Your task to perform on an android device: allow cookies in the chrome app Image 0: 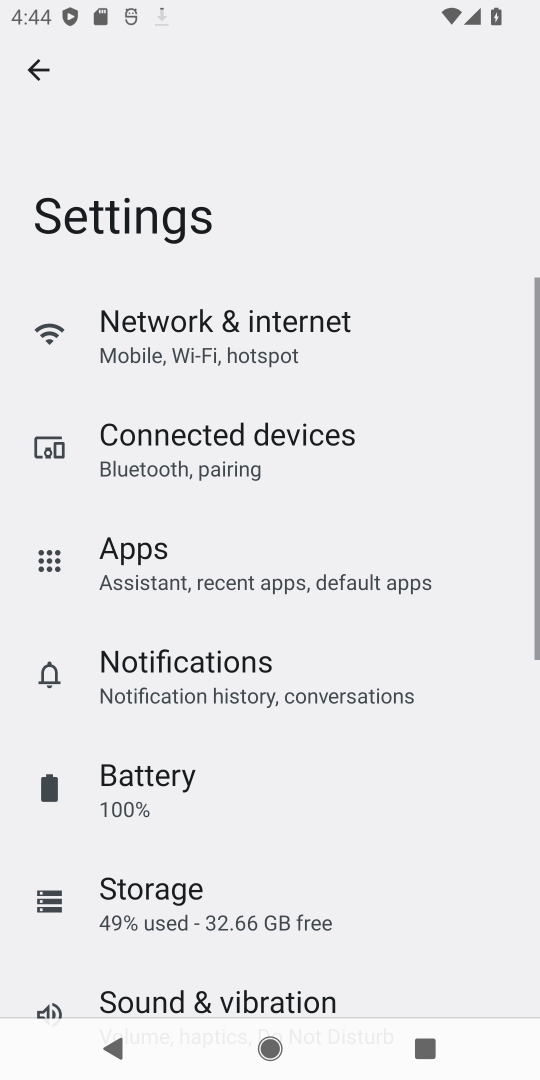
Step 0: press home button
Your task to perform on an android device: allow cookies in the chrome app Image 1: 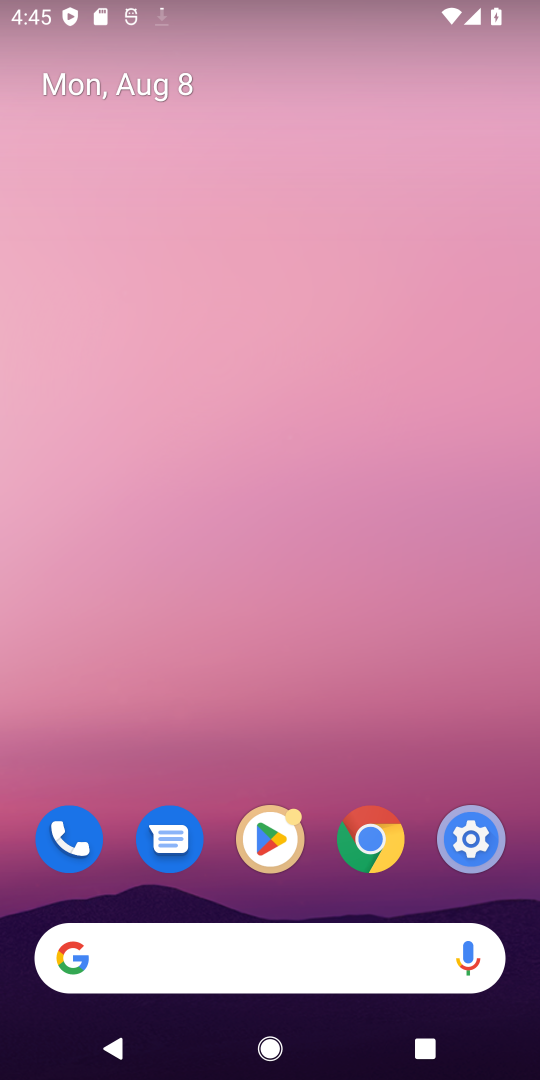
Step 1: click (357, 879)
Your task to perform on an android device: allow cookies in the chrome app Image 2: 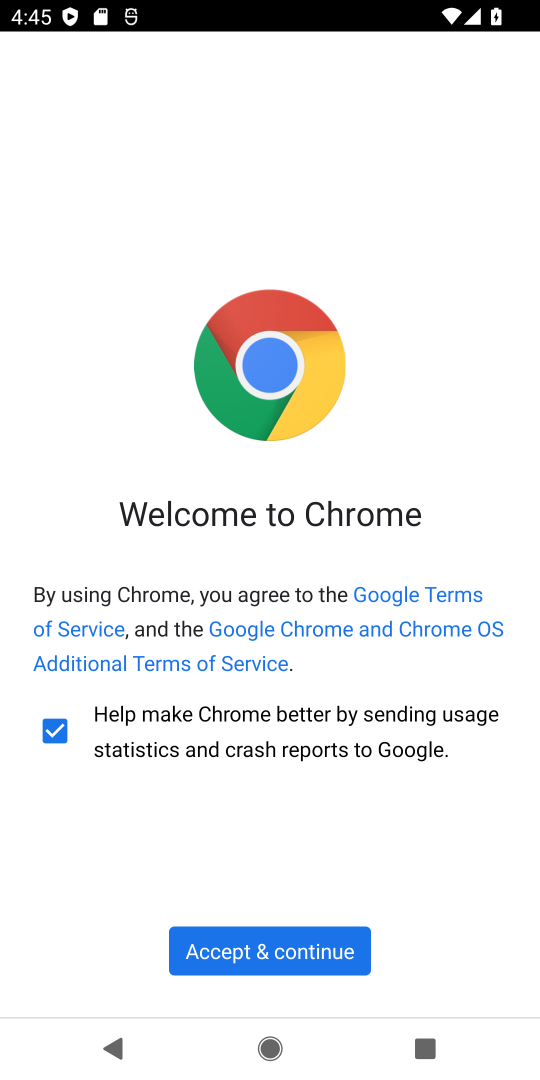
Step 2: click (260, 958)
Your task to perform on an android device: allow cookies in the chrome app Image 3: 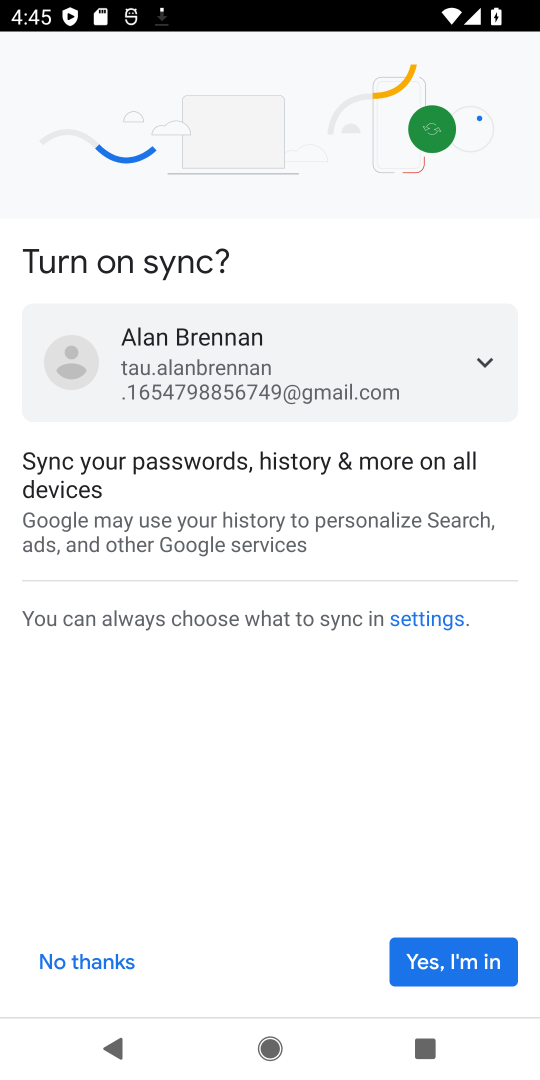
Step 3: click (452, 962)
Your task to perform on an android device: allow cookies in the chrome app Image 4: 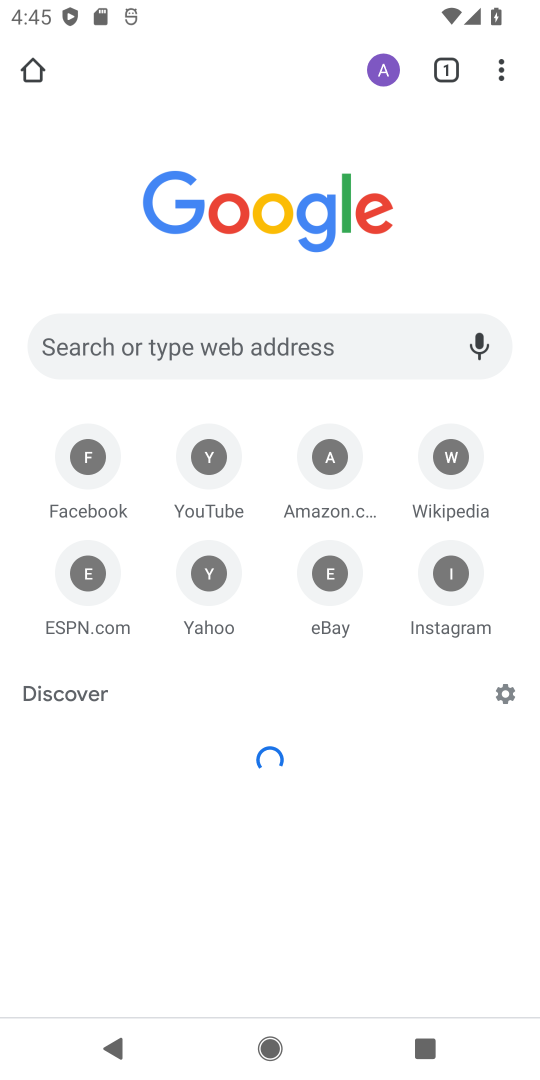
Step 4: click (500, 71)
Your task to perform on an android device: allow cookies in the chrome app Image 5: 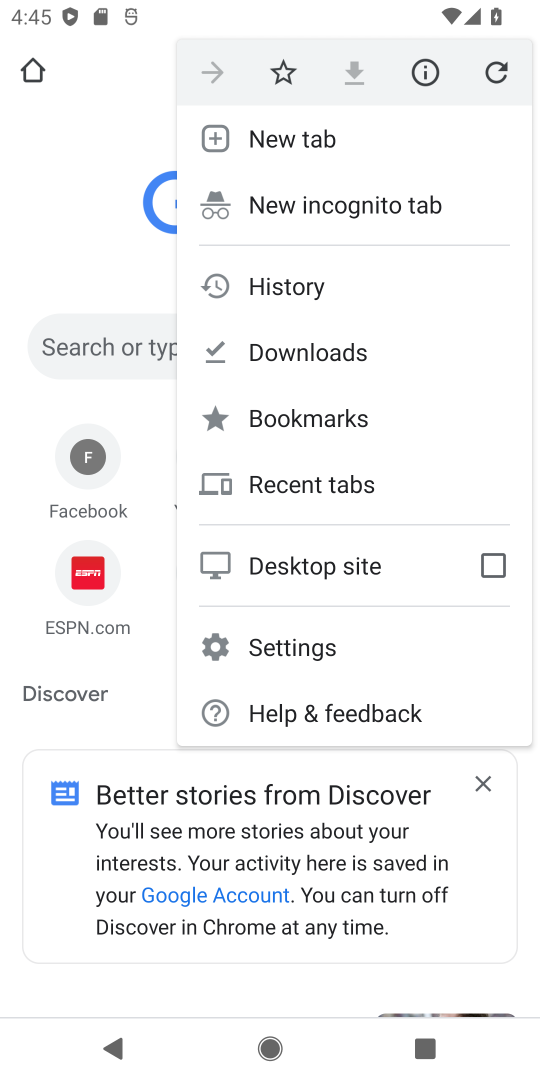
Step 5: click (303, 646)
Your task to perform on an android device: allow cookies in the chrome app Image 6: 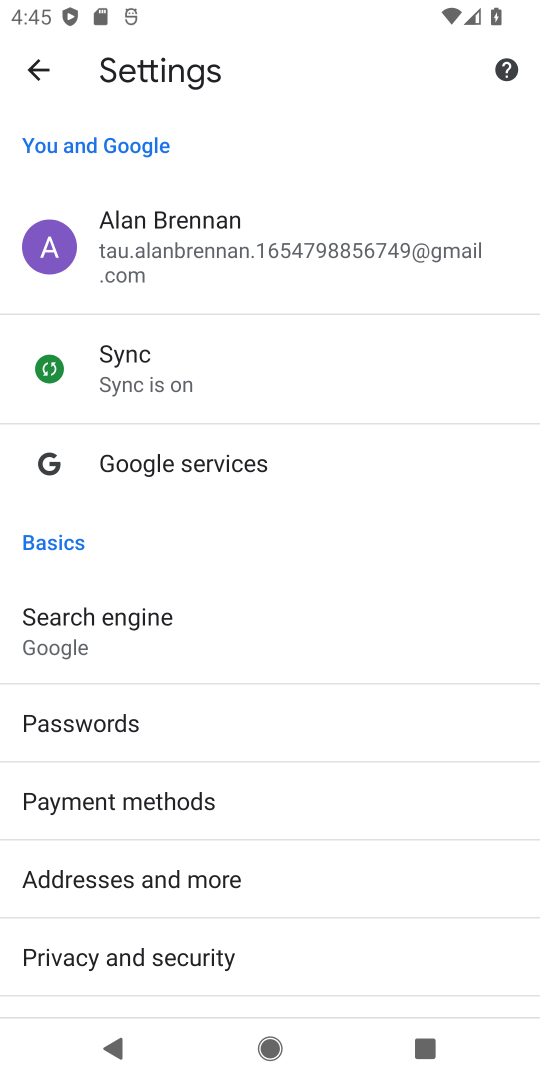
Step 6: drag from (150, 798) to (247, 400)
Your task to perform on an android device: allow cookies in the chrome app Image 7: 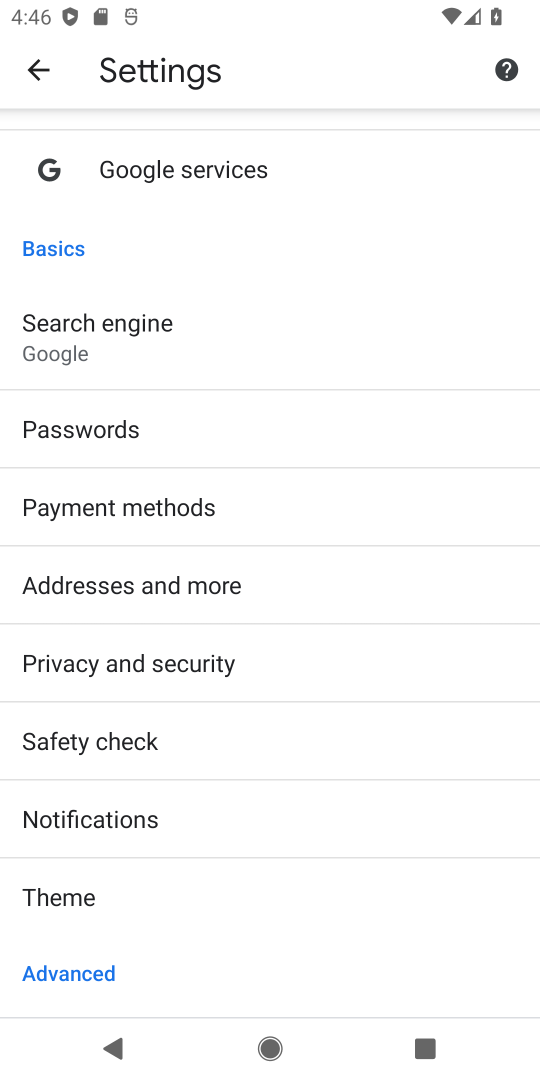
Step 7: drag from (220, 804) to (299, 477)
Your task to perform on an android device: allow cookies in the chrome app Image 8: 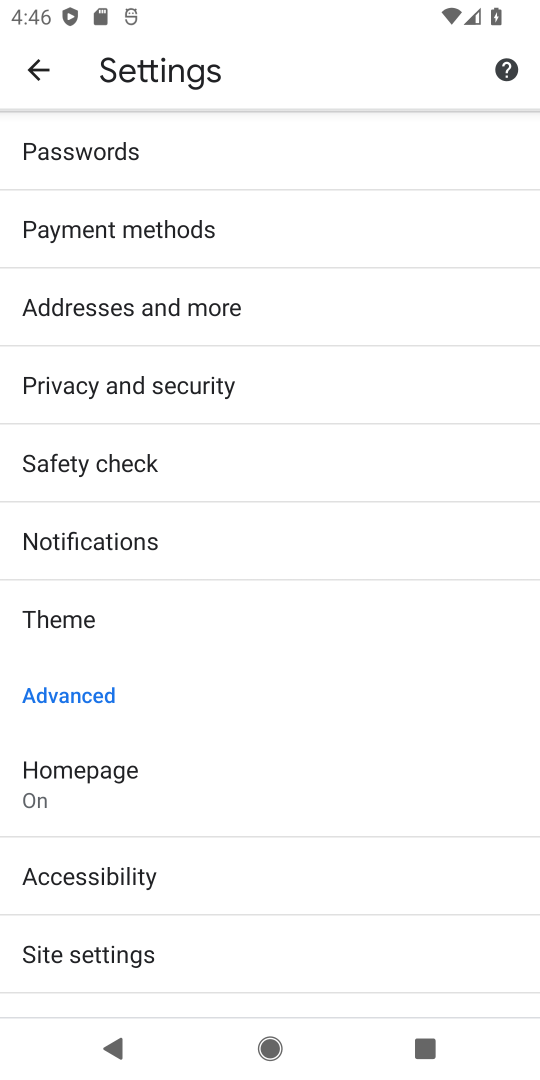
Step 8: click (119, 947)
Your task to perform on an android device: allow cookies in the chrome app Image 9: 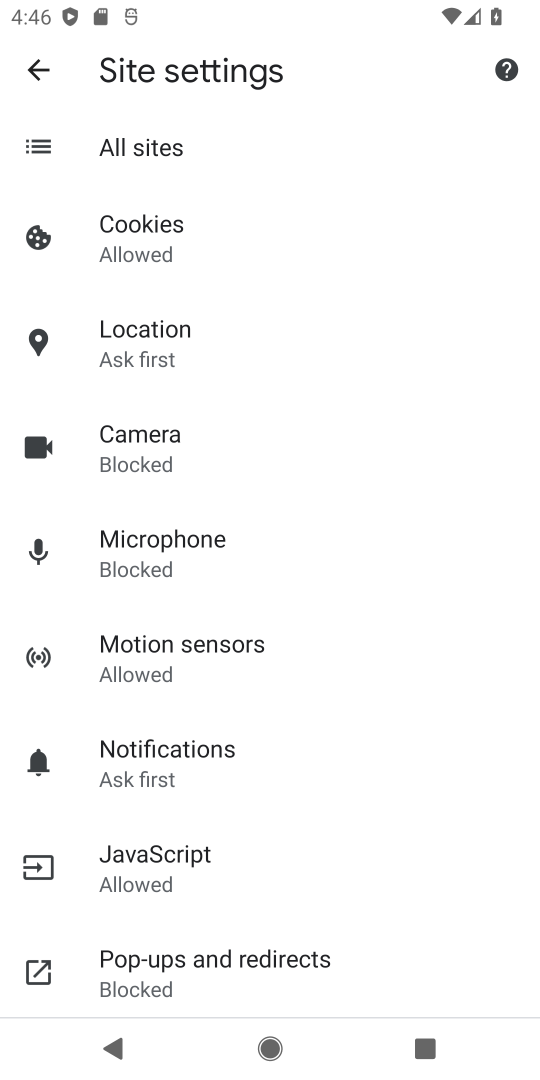
Step 9: click (157, 252)
Your task to perform on an android device: allow cookies in the chrome app Image 10: 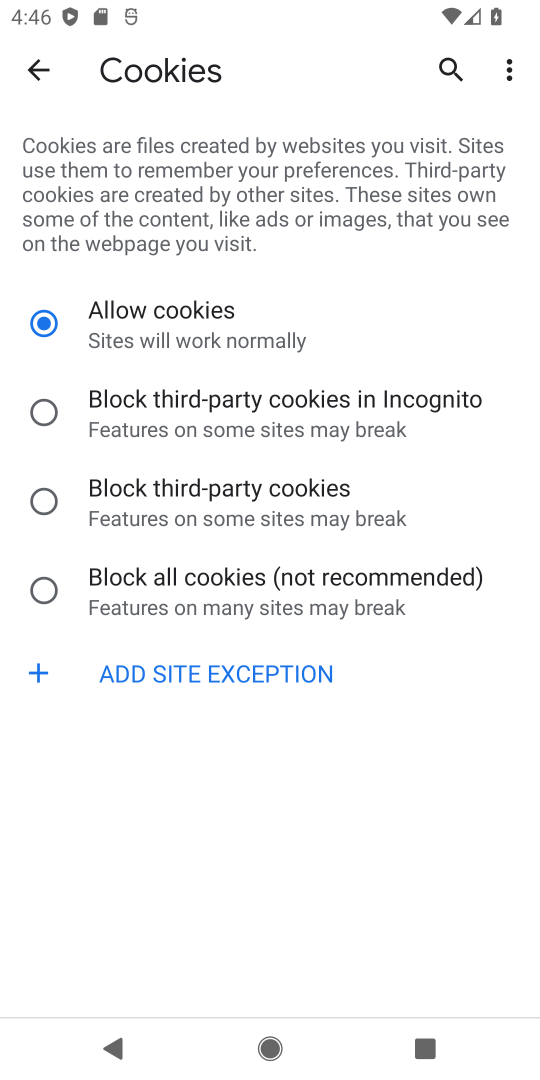
Step 10: task complete